Your task to perform on an android device: Open Reddit.com Image 0: 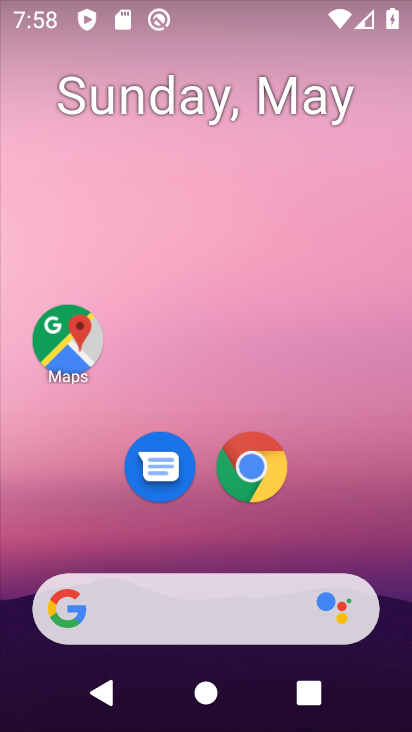
Step 0: click (255, 476)
Your task to perform on an android device: Open Reddit.com Image 1: 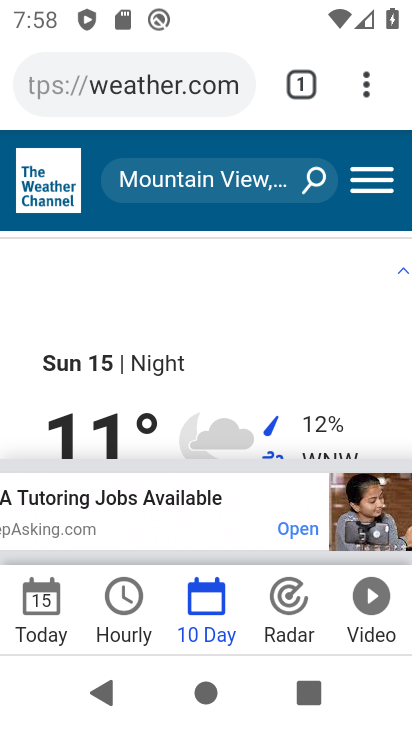
Step 1: click (211, 72)
Your task to perform on an android device: Open Reddit.com Image 2: 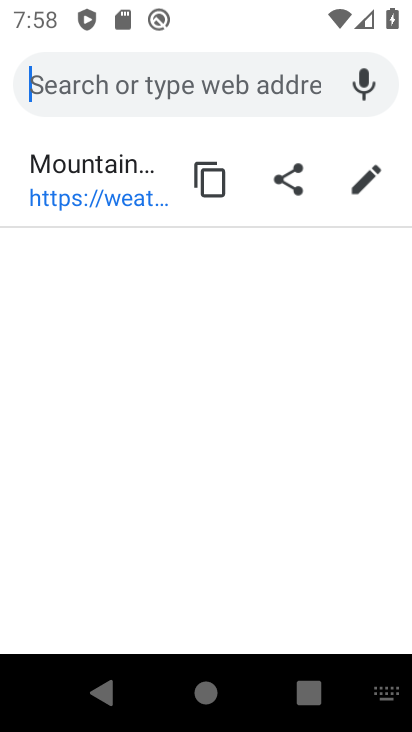
Step 2: type "reddit.com"
Your task to perform on an android device: Open Reddit.com Image 3: 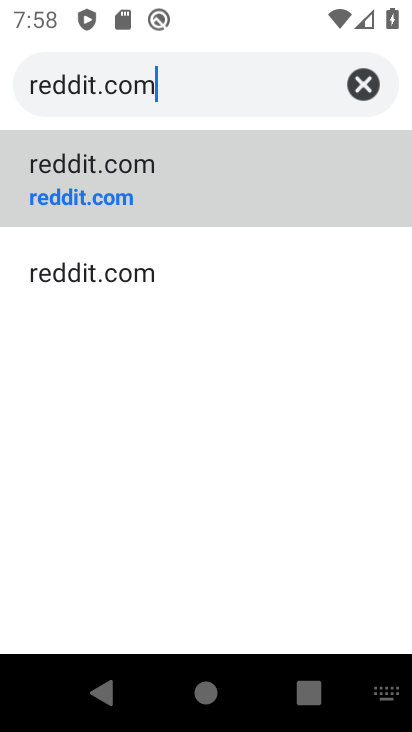
Step 3: click (117, 177)
Your task to perform on an android device: Open Reddit.com Image 4: 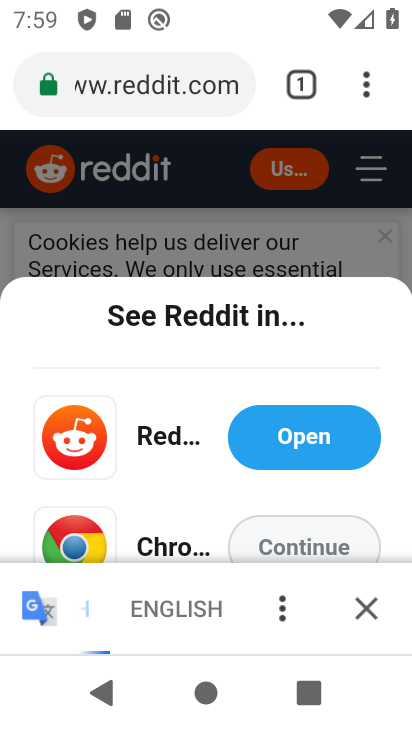
Step 4: click (195, 229)
Your task to perform on an android device: Open Reddit.com Image 5: 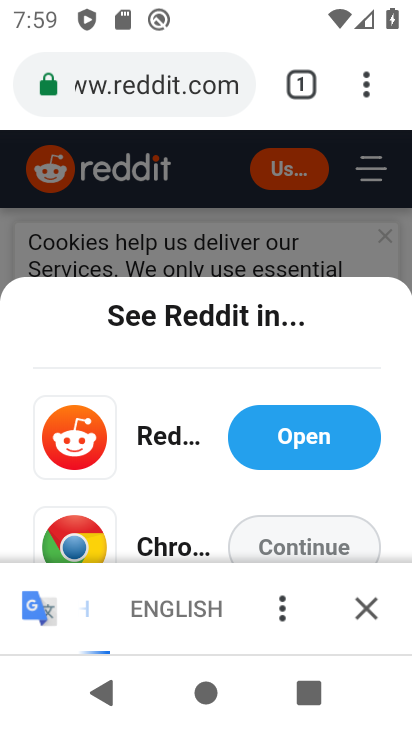
Step 5: click (365, 617)
Your task to perform on an android device: Open Reddit.com Image 6: 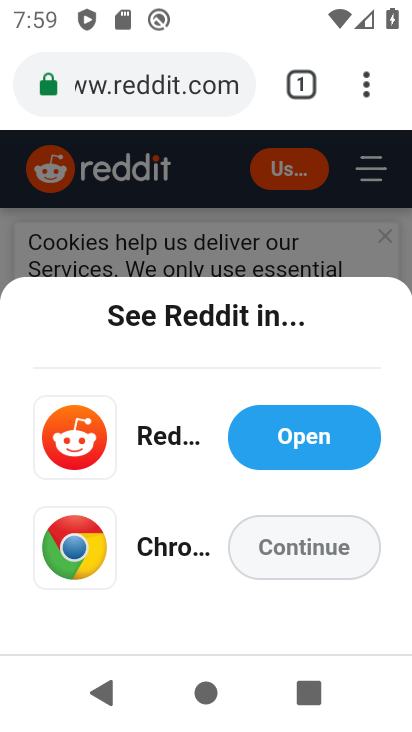
Step 6: task complete